Your task to perform on an android device: turn off priority inbox in the gmail app Image 0: 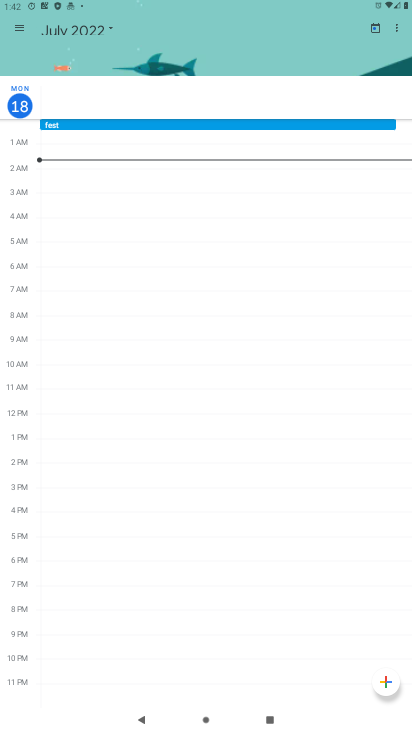
Step 0: press home button
Your task to perform on an android device: turn off priority inbox in the gmail app Image 1: 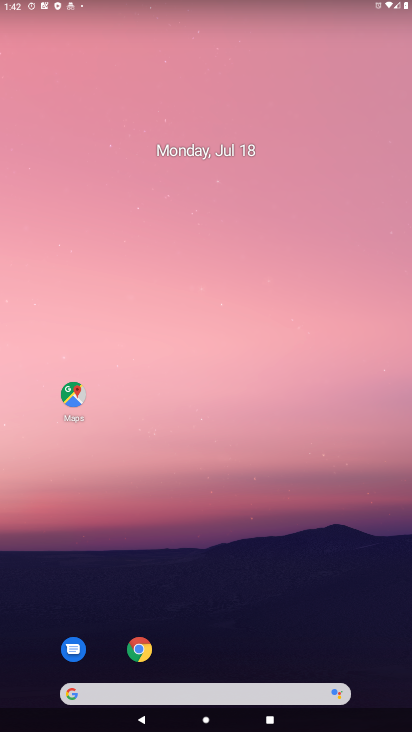
Step 1: drag from (212, 675) to (169, 203)
Your task to perform on an android device: turn off priority inbox in the gmail app Image 2: 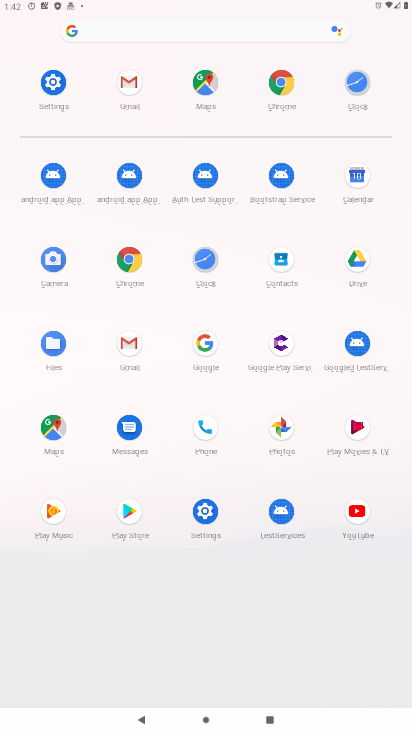
Step 2: click (132, 85)
Your task to perform on an android device: turn off priority inbox in the gmail app Image 3: 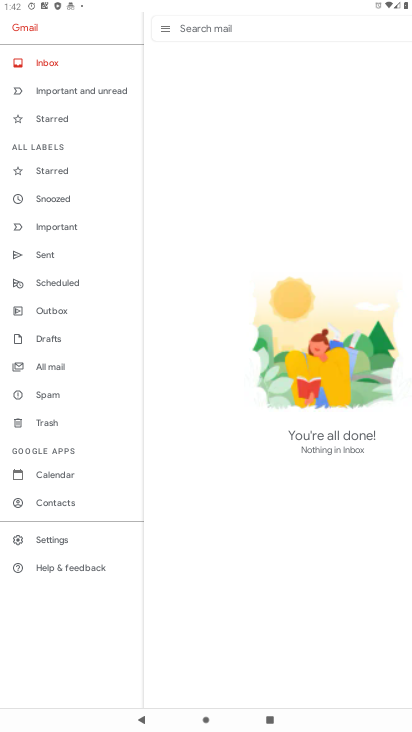
Step 3: click (84, 544)
Your task to perform on an android device: turn off priority inbox in the gmail app Image 4: 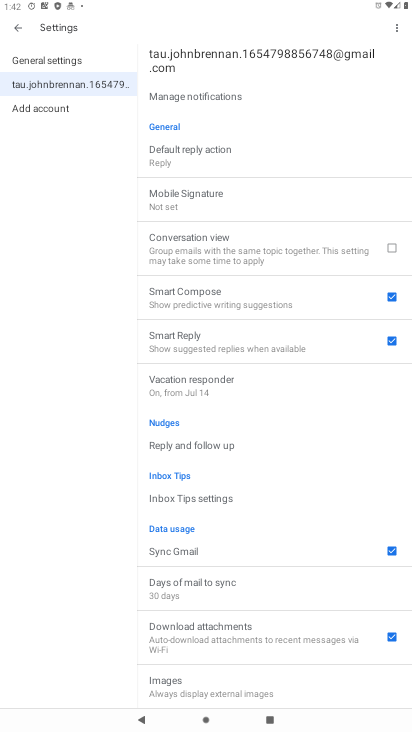
Step 4: click (189, 157)
Your task to perform on an android device: turn off priority inbox in the gmail app Image 5: 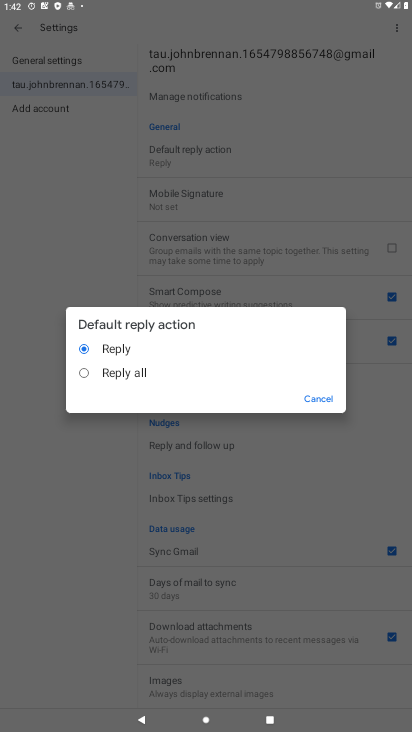
Step 5: click (314, 397)
Your task to perform on an android device: turn off priority inbox in the gmail app Image 6: 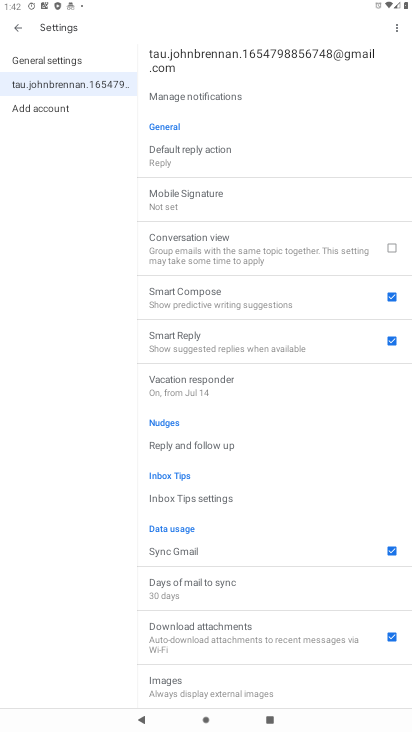
Step 6: drag from (193, 142) to (222, 509)
Your task to perform on an android device: turn off priority inbox in the gmail app Image 7: 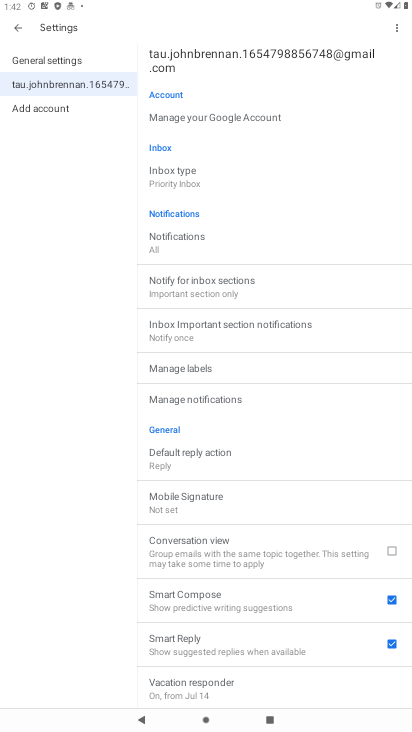
Step 7: click (179, 173)
Your task to perform on an android device: turn off priority inbox in the gmail app Image 8: 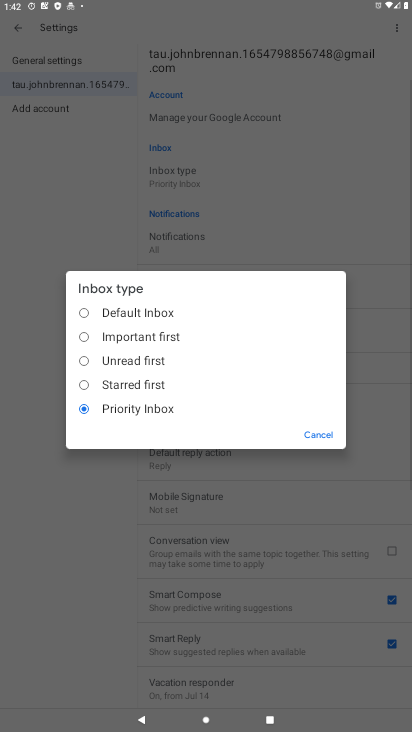
Step 8: click (121, 309)
Your task to perform on an android device: turn off priority inbox in the gmail app Image 9: 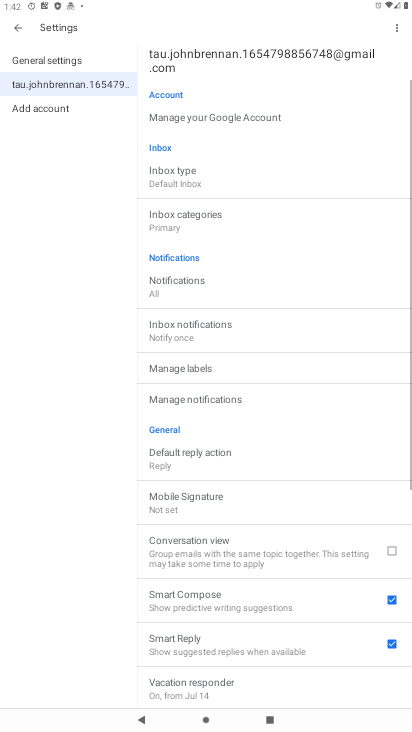
Step 9: task complete